Your task to perform on an android device: set an alarm Image 0: 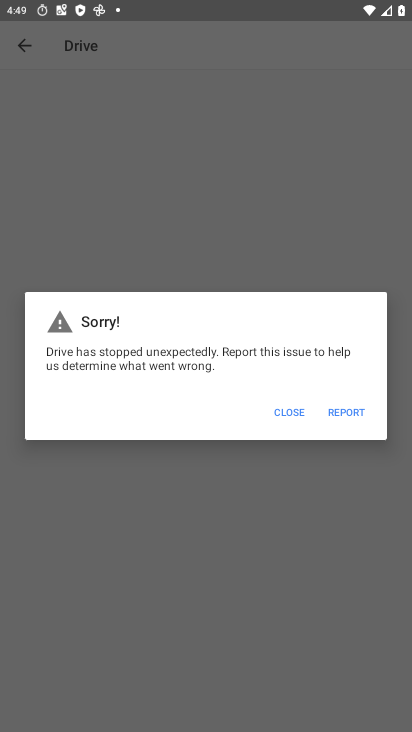
Step 0: press home button
Your task to perform on an android device: set an alarm Image 1: 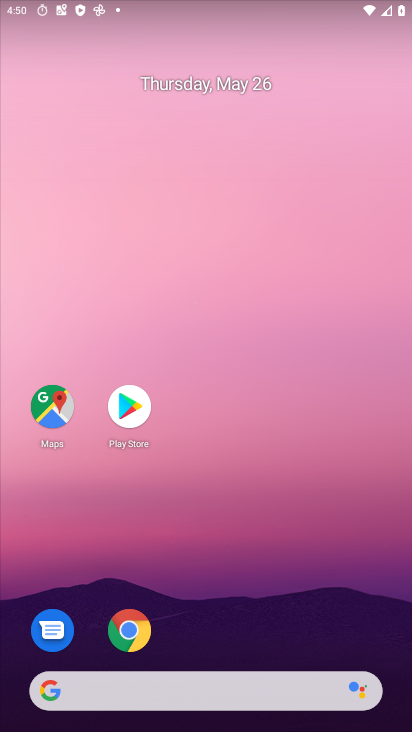
Step 1: drag from (324, 659) to (268, 95)
Your task to perform on an android device: set an alarm Image 2: 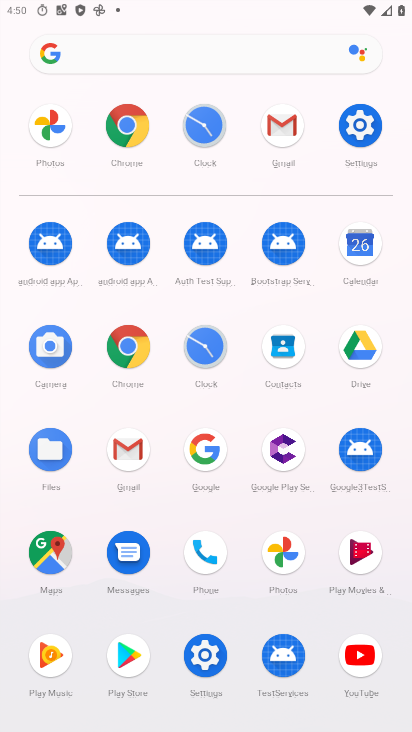
Step 2: click (201, 122)
Your task to perform on an android device: set an alarm Image 3: 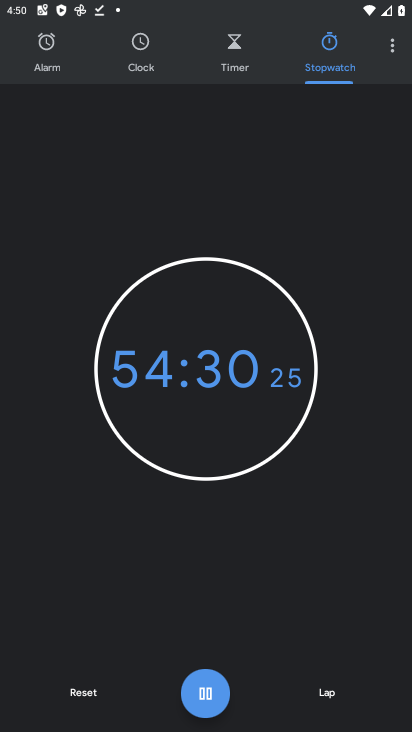
Step 3: click (51, 49)
Your task to perform on an android device: set an alarm Image 4: 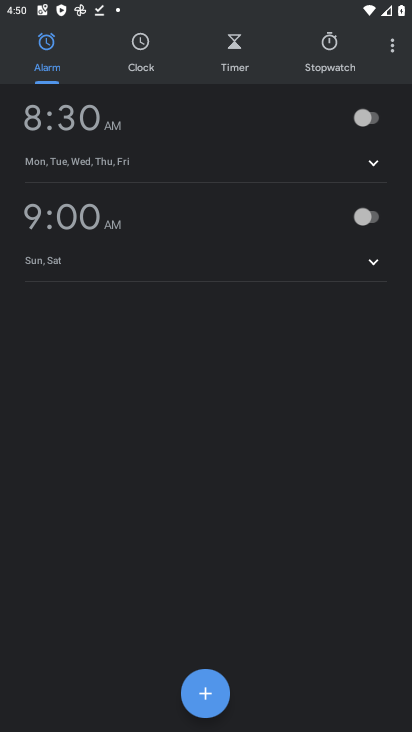
Step 4: click (376, 224)
Your task to perform on an android device: set an alarm Image 5: 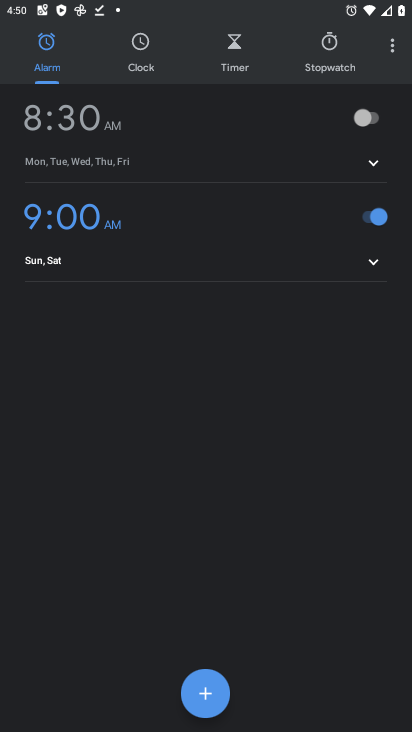
Step 5: task complete